Your task to perform on an android device: set the stopwatch Image 0: 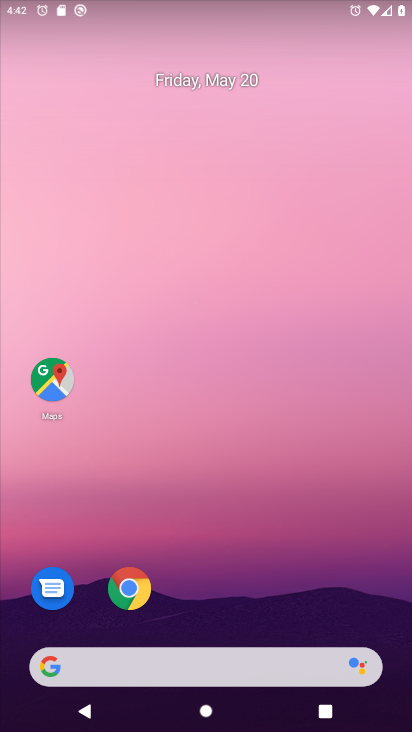
Step 0: drag from (240, 612) to (207, 101)
Your task to perform on an android device: set the stopwatch Image 1: 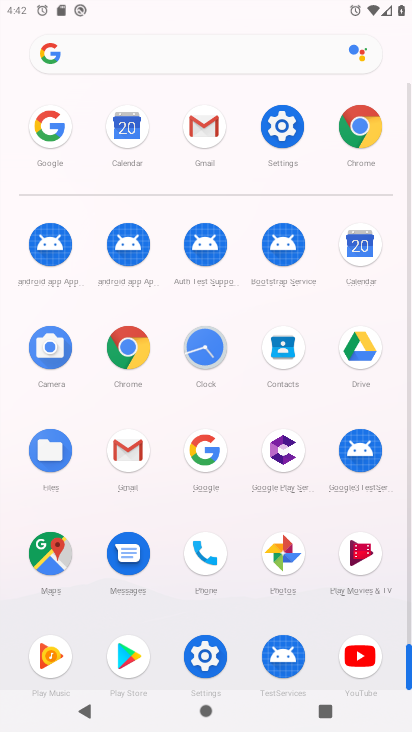
Step 1: click (192, 341)
Your task to perform on an android device: set the stopwatch Image 2: 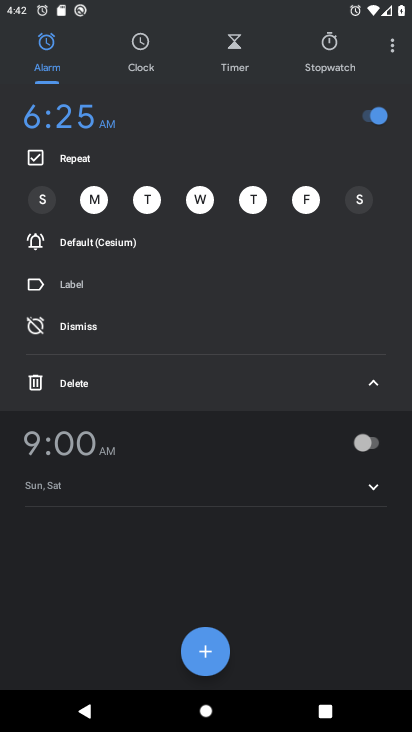
Step 2: click (326, 52)
Your task to perform on an android device: set the stopwatch Image 3: 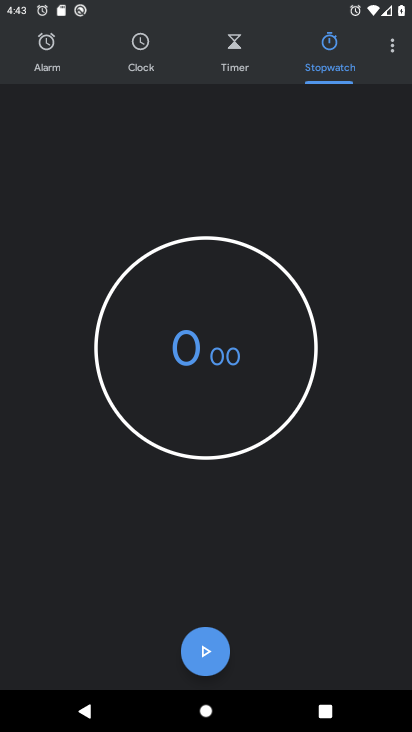
Step 3: click (205, 646)
Your task to perform on an android device: set the stopwatch Image 4: 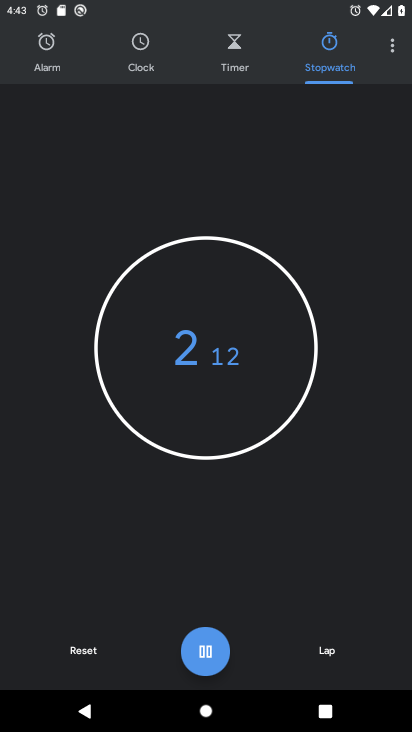
Step 4: task complete